Your task to perform on an android device: Go to battery settings Image 0: 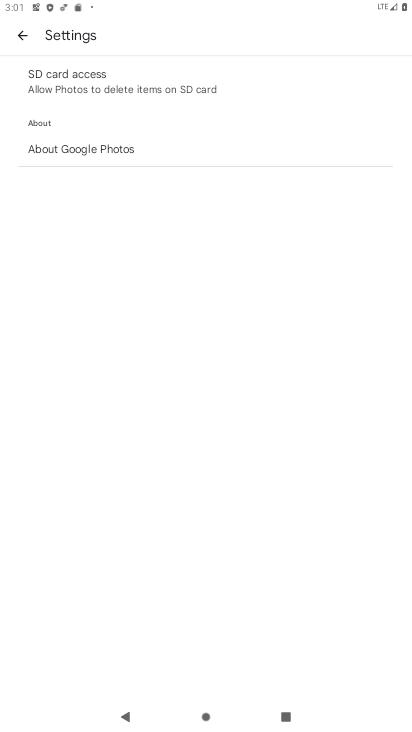
Step 0: press home button
Your task to perform on an android device: Go to battery settings Image 1: 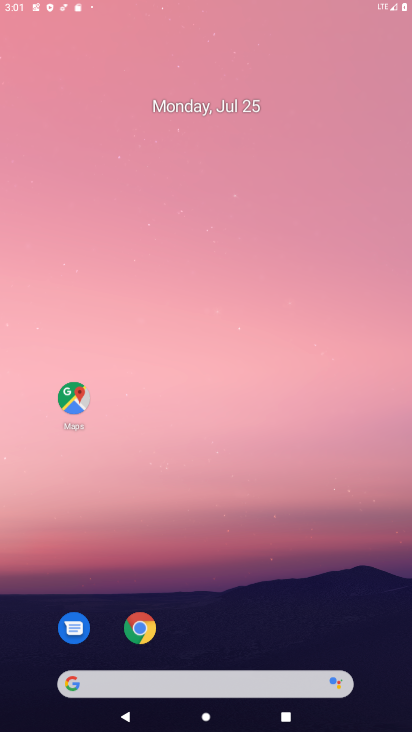
Step 1: drag from (206, 647) to (292, 79)
Your task to perform on an android device: Go to battery settings Image 2: 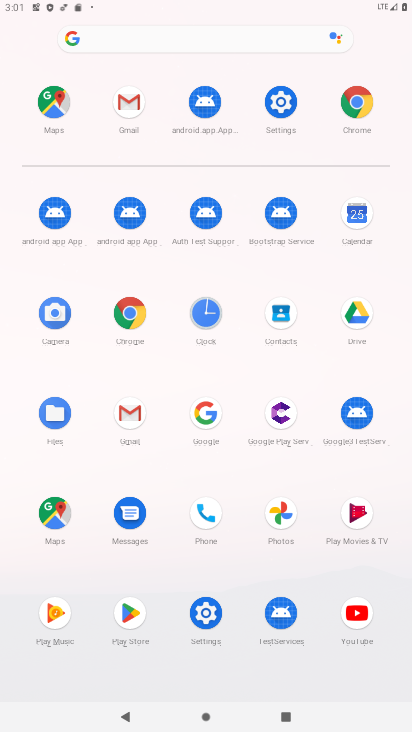
Step 2: click (205, 619)
Your task to perform on an android device: Go to battery settings Image 3: 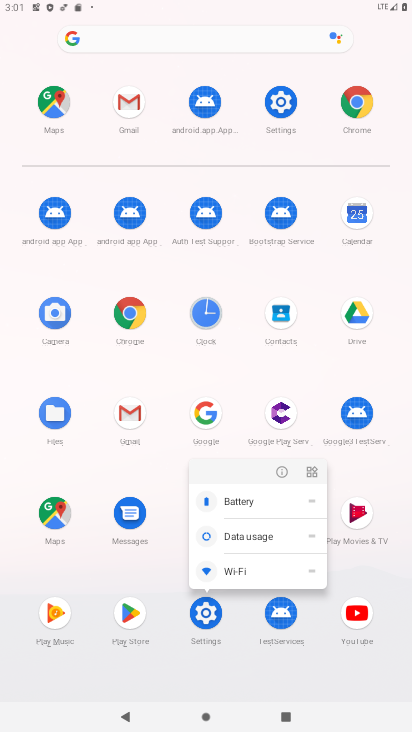
Step 3: click (281, 465)
Your task to perform on an android device: Go to battery settings Image 4: 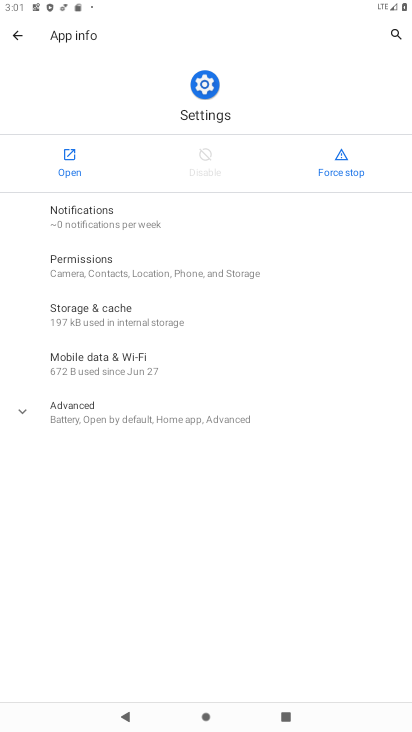
Step 4: click (58, 156)
Your task to perform on an android device: Go to battery settings Image 5: 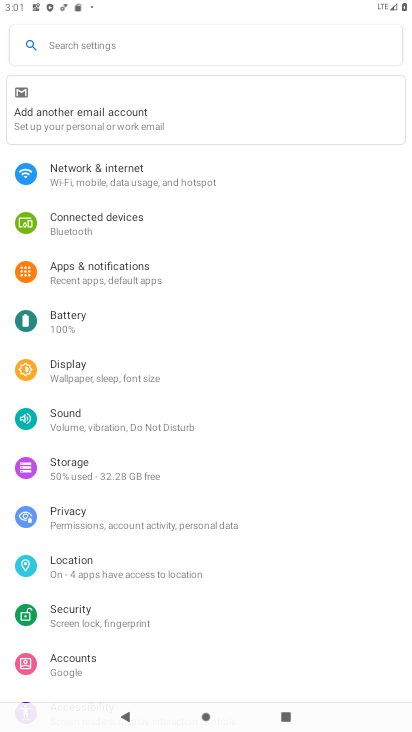
Step 5: click (88, 324)
Your task to perform on an android device: Go to battery settings Image 6: 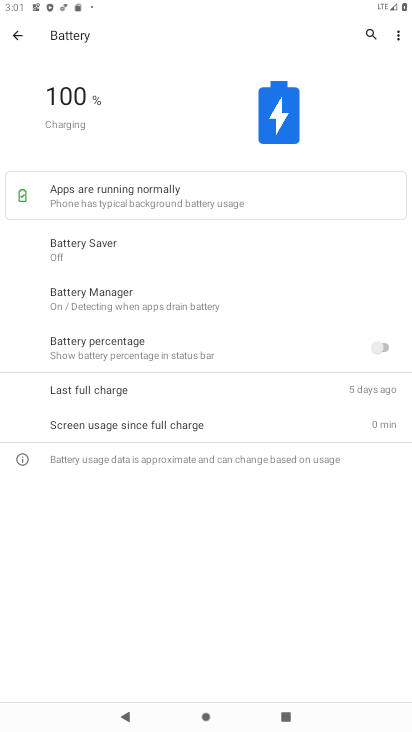
Step 6: task complete